Your task to perform on an android device: turn off sleep mode Image 0: 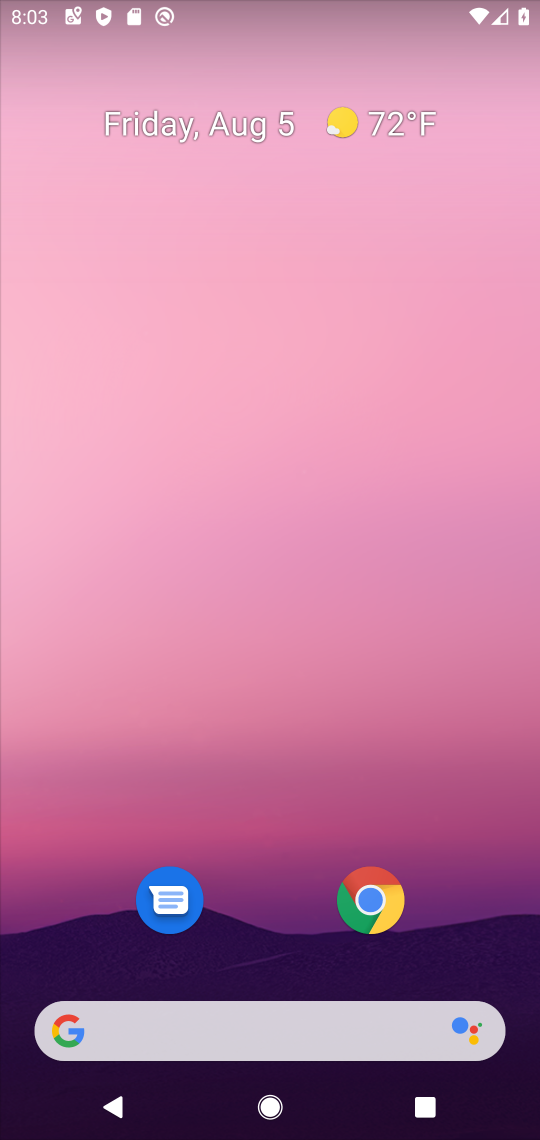
Step 0: drag from (269, 938) to (359, 351)
Your task to perform on an android device: turn off sleep mode Image 1: 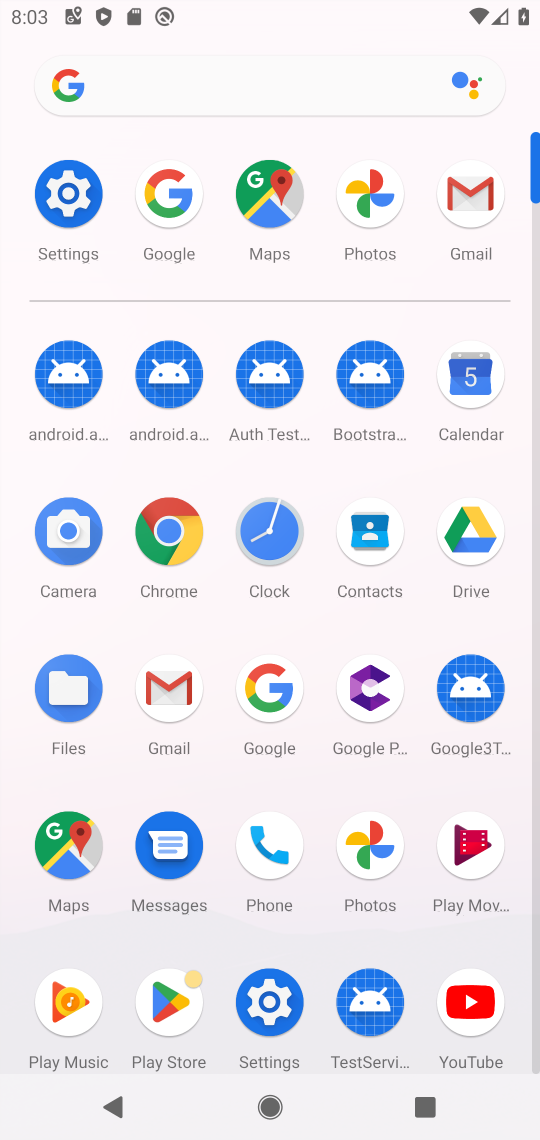
Step 1: click (66, 210)
Your task to perform on an android device: turn off sleep mode Image 2: 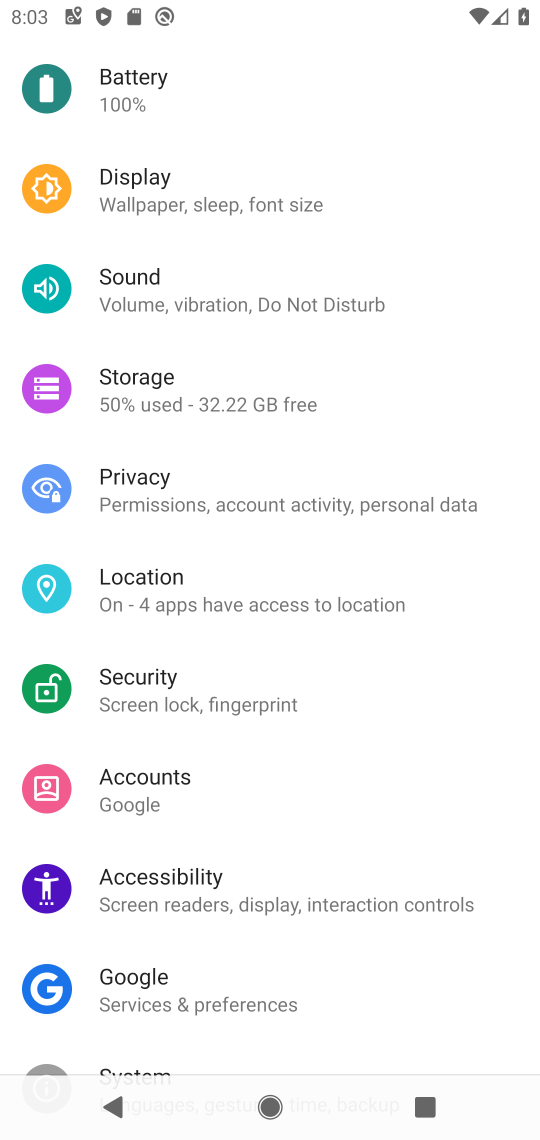
Step 2: click (152, 215)
Your task to perform on an android device: turn off sleep mode Image 3: 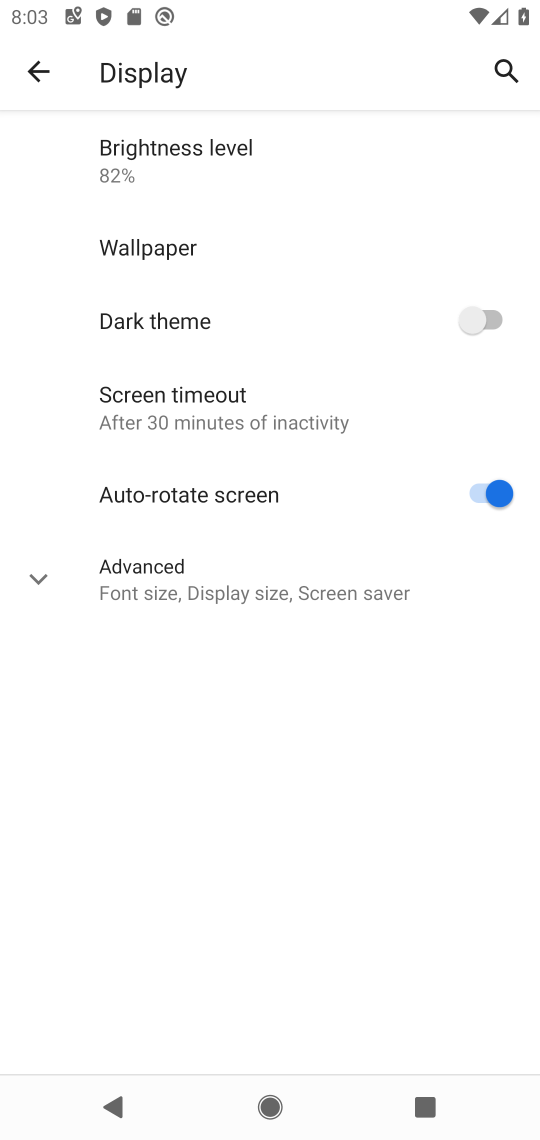
Step 3: click (240, 577)
Your task to perform on an android device: turn off sleep mode Image 4: 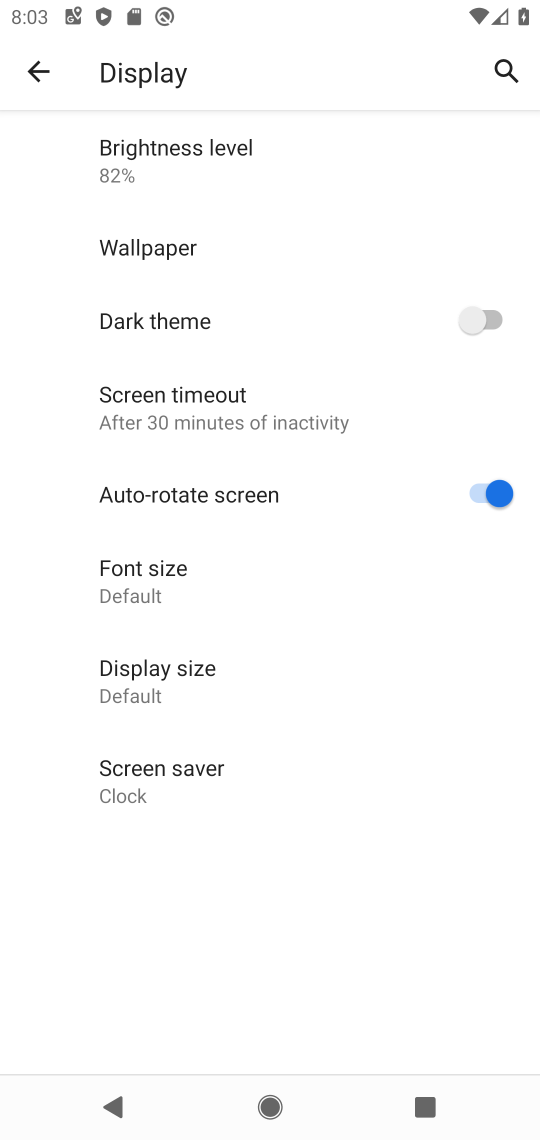
Step 4: click (148, 414)
Your task to perform on an android device: turn off sleep mode Image 5: 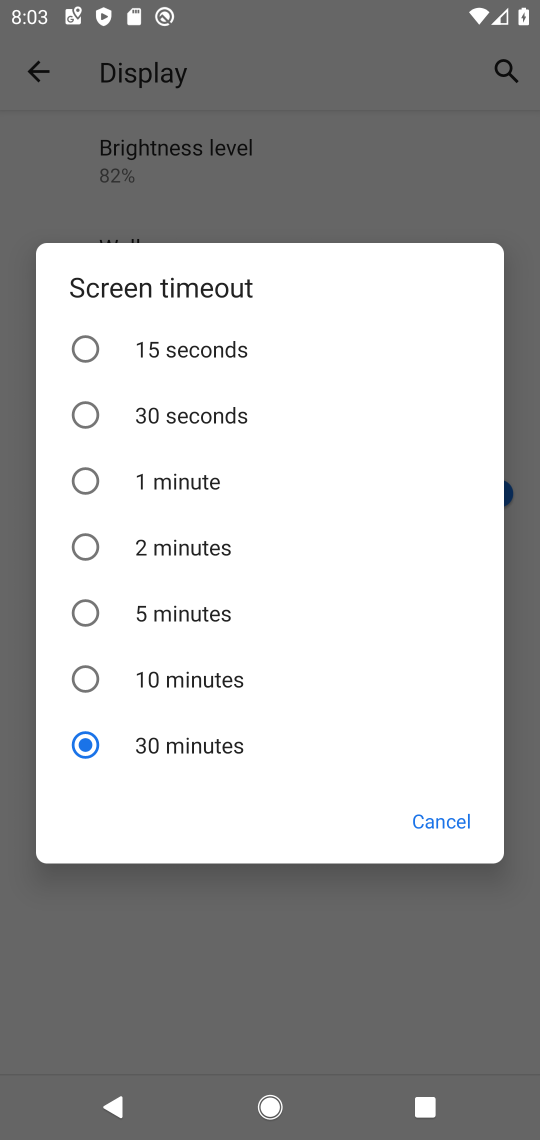
Step 5: click (148, 356)
Your task to perform on an android device: turn off sleep mode Image 6: 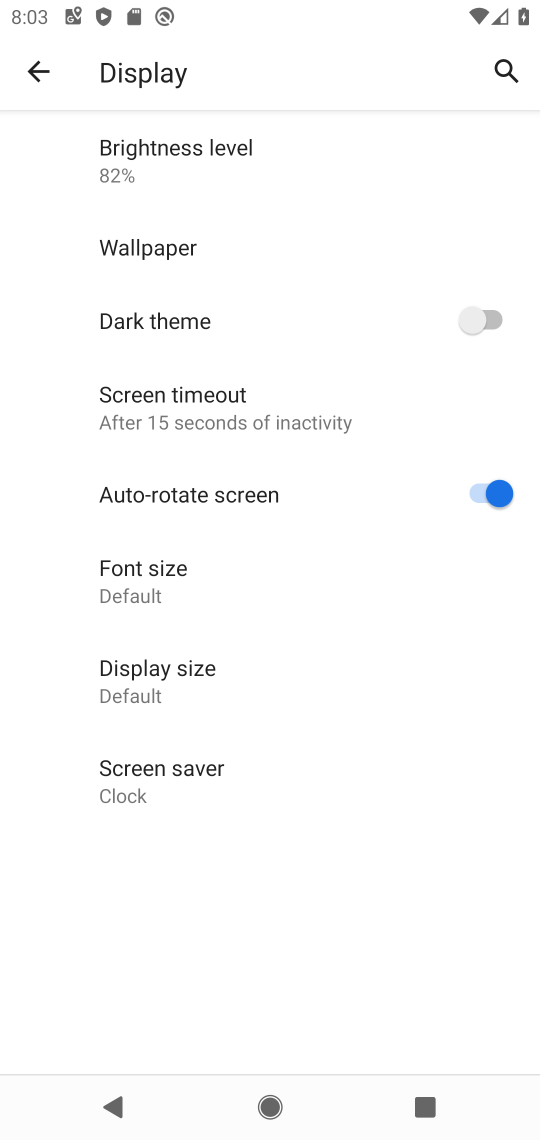
Step 6: task complete